Your task to perform on an android device: change timer sound Image 0: 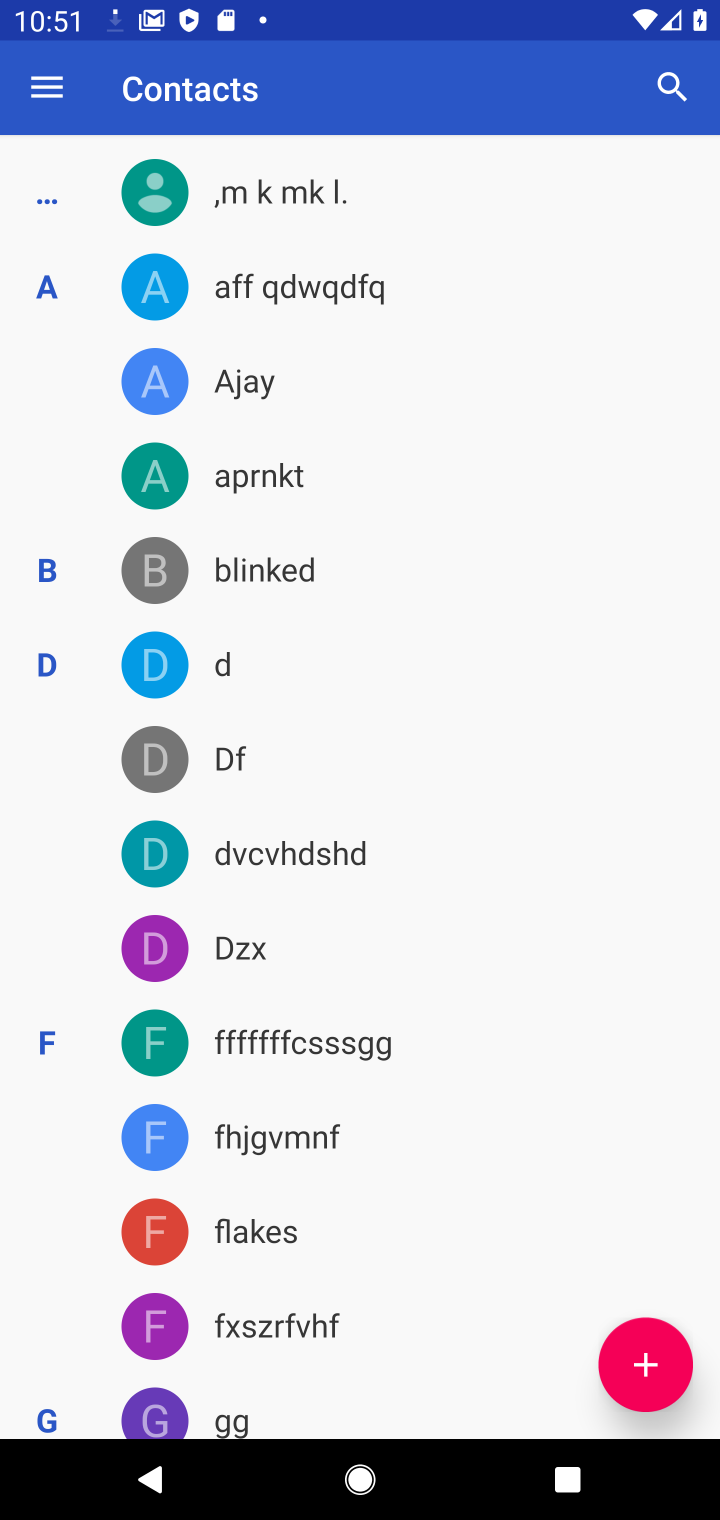
Step 0: press home button
Your task to perform on an android device: change timer sound Image 1: 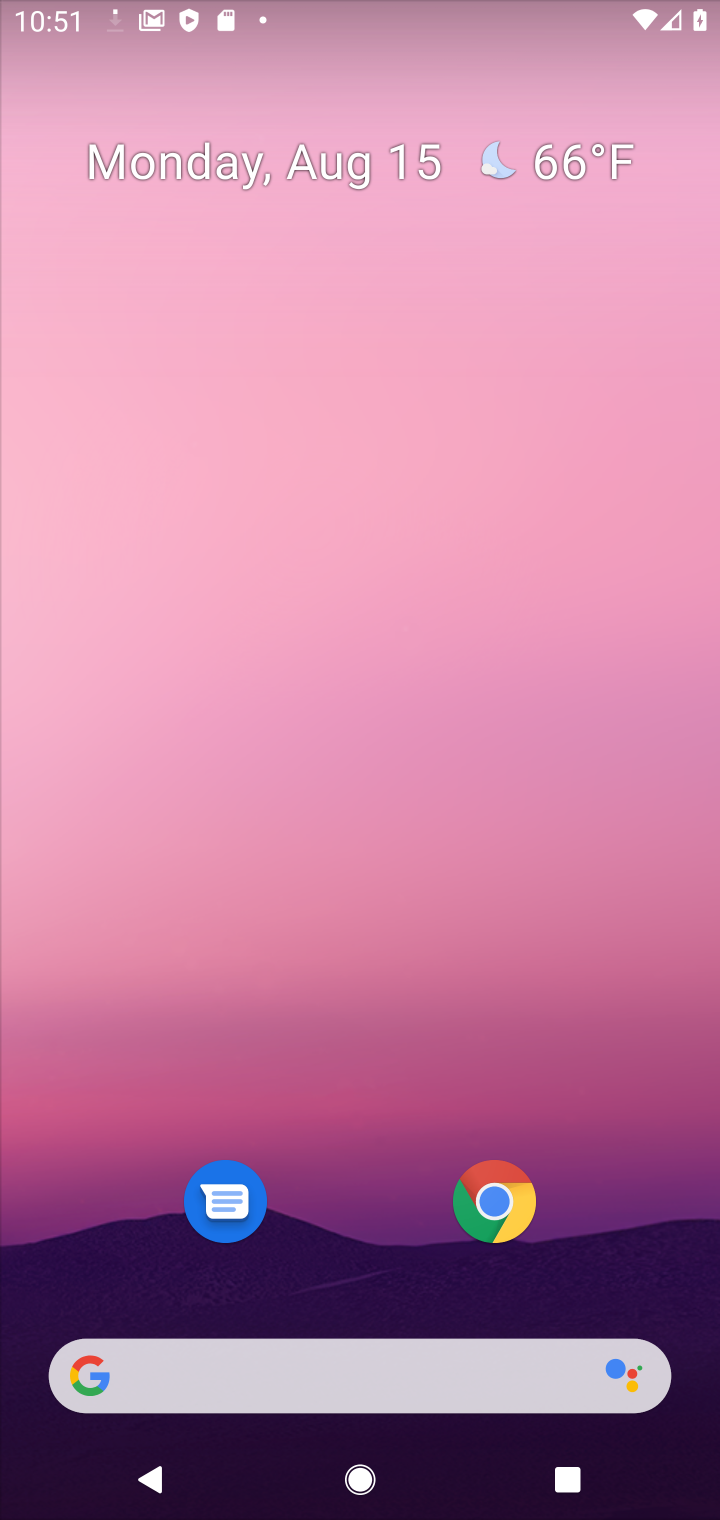
Step 1: drag from (369, 1337) to (385, 708)
Your task to perform on an android device: change timer sound Image 2: 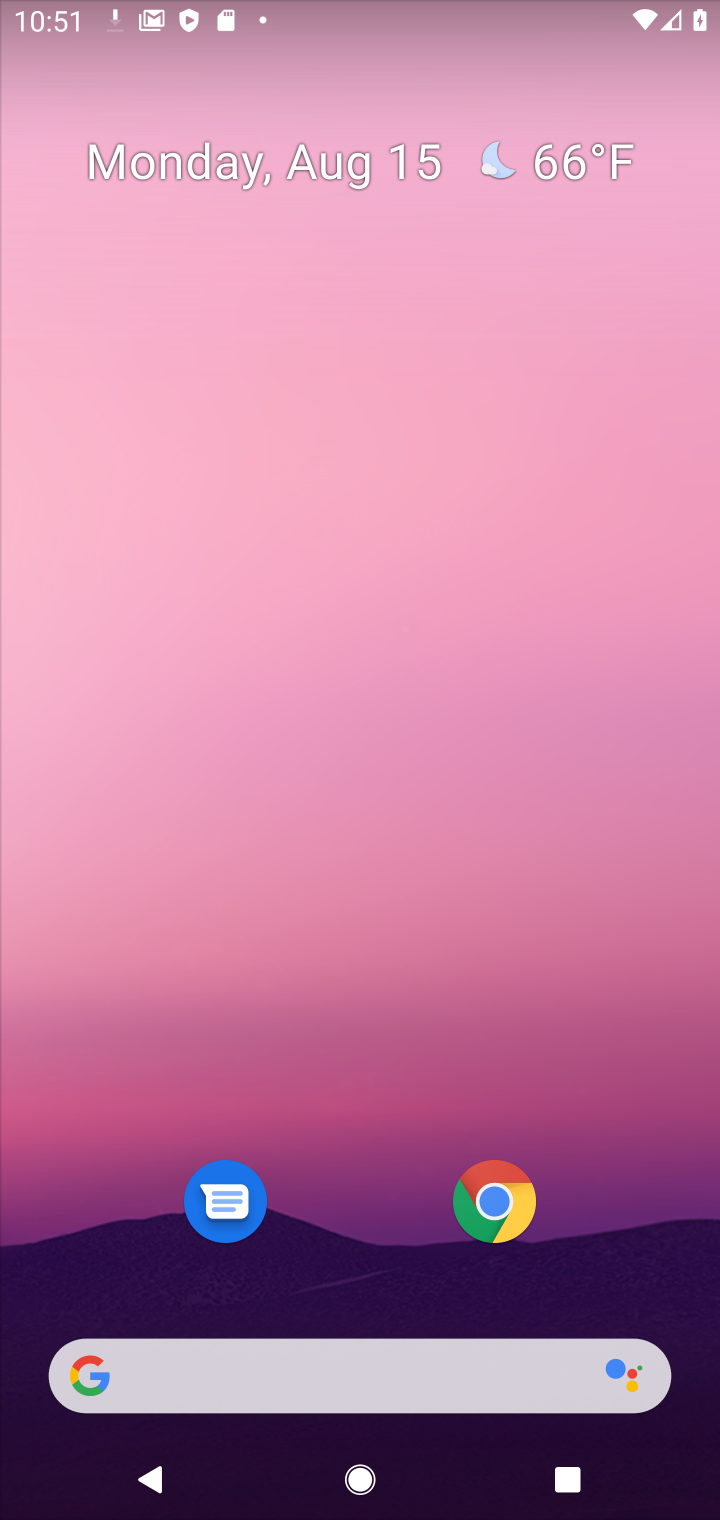
Step 2: drag from (361, 1345) to (331, 486)
Your task to perform on an android device: change timer sound Image 3: 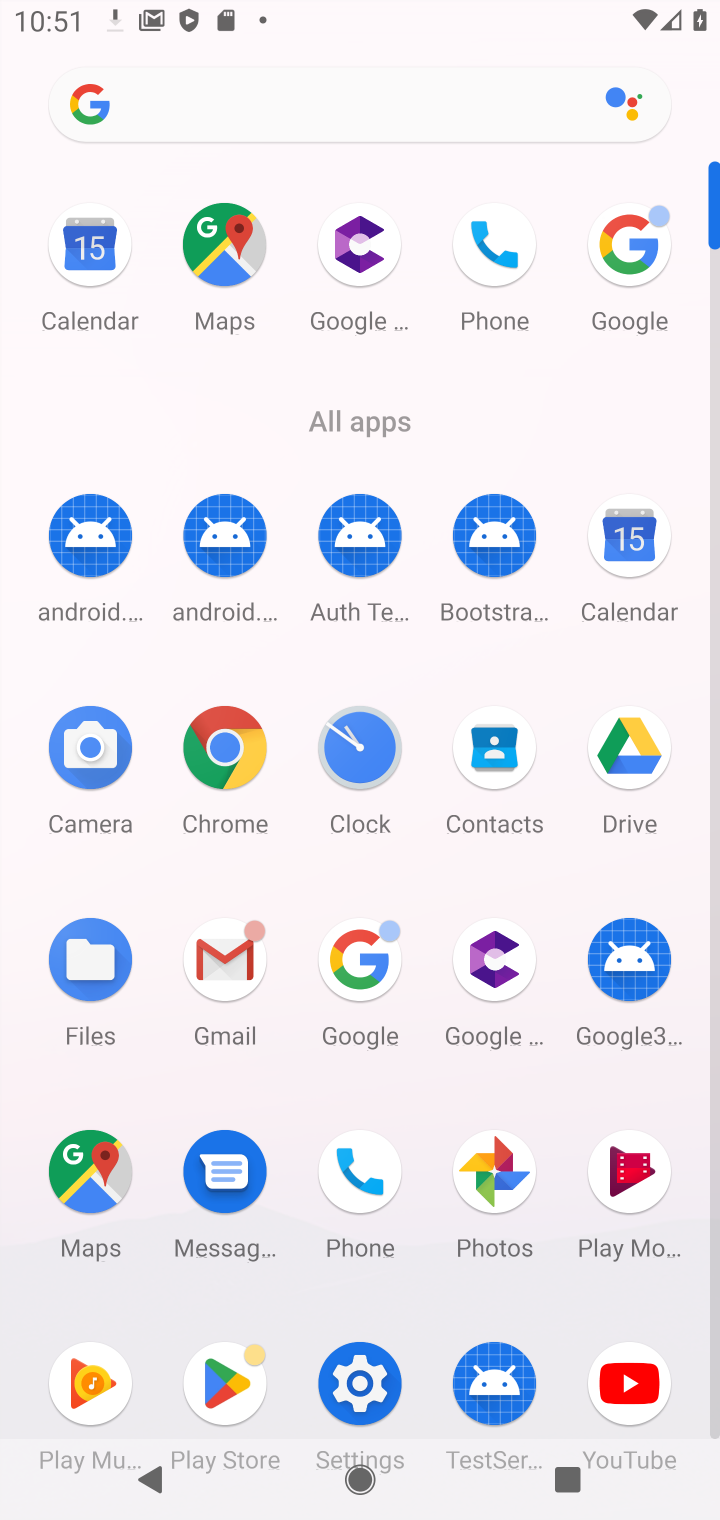
Step 3: click (353, 753)
Your task to perform on an android device: change timer sound Image 4: 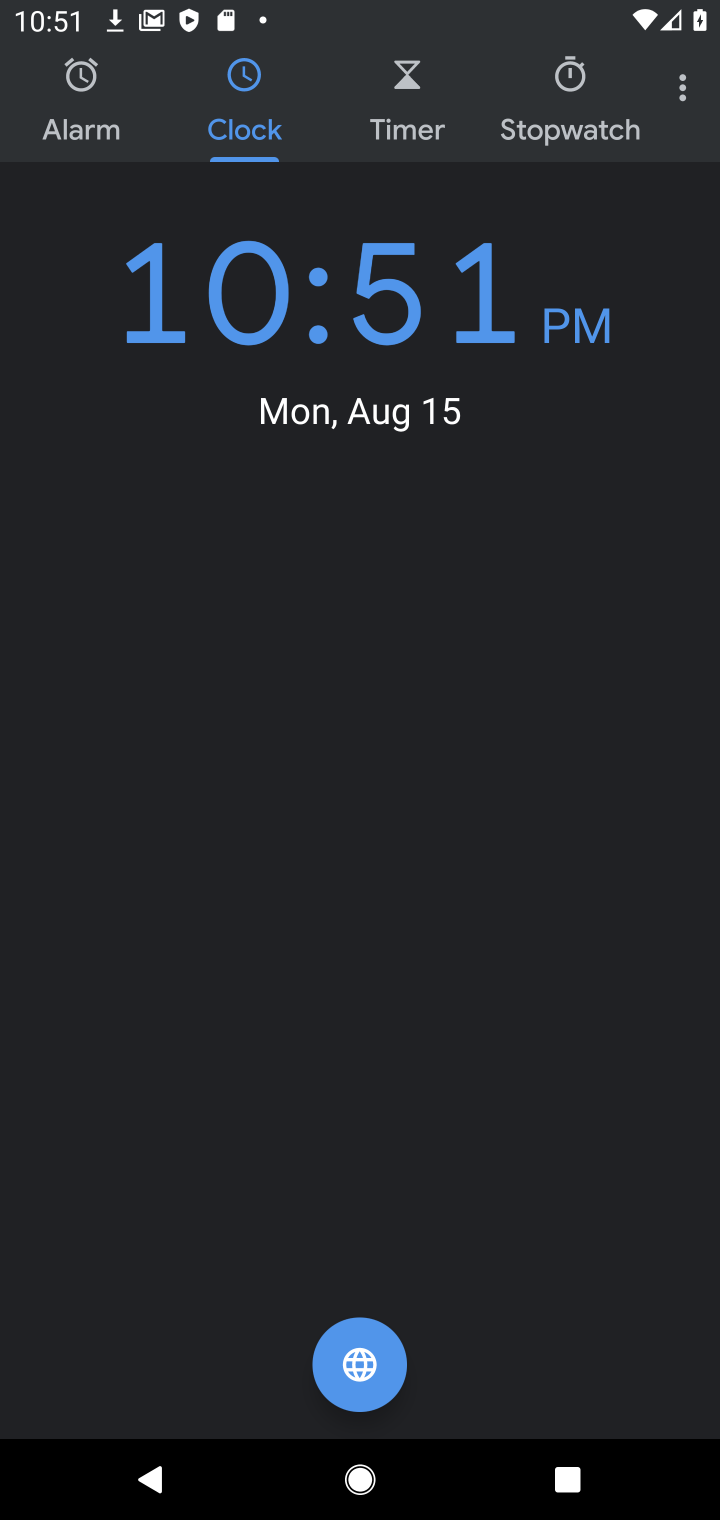
Step 4: click (666, 86)
Your task to perform on an android device: change timer sound Image 5: 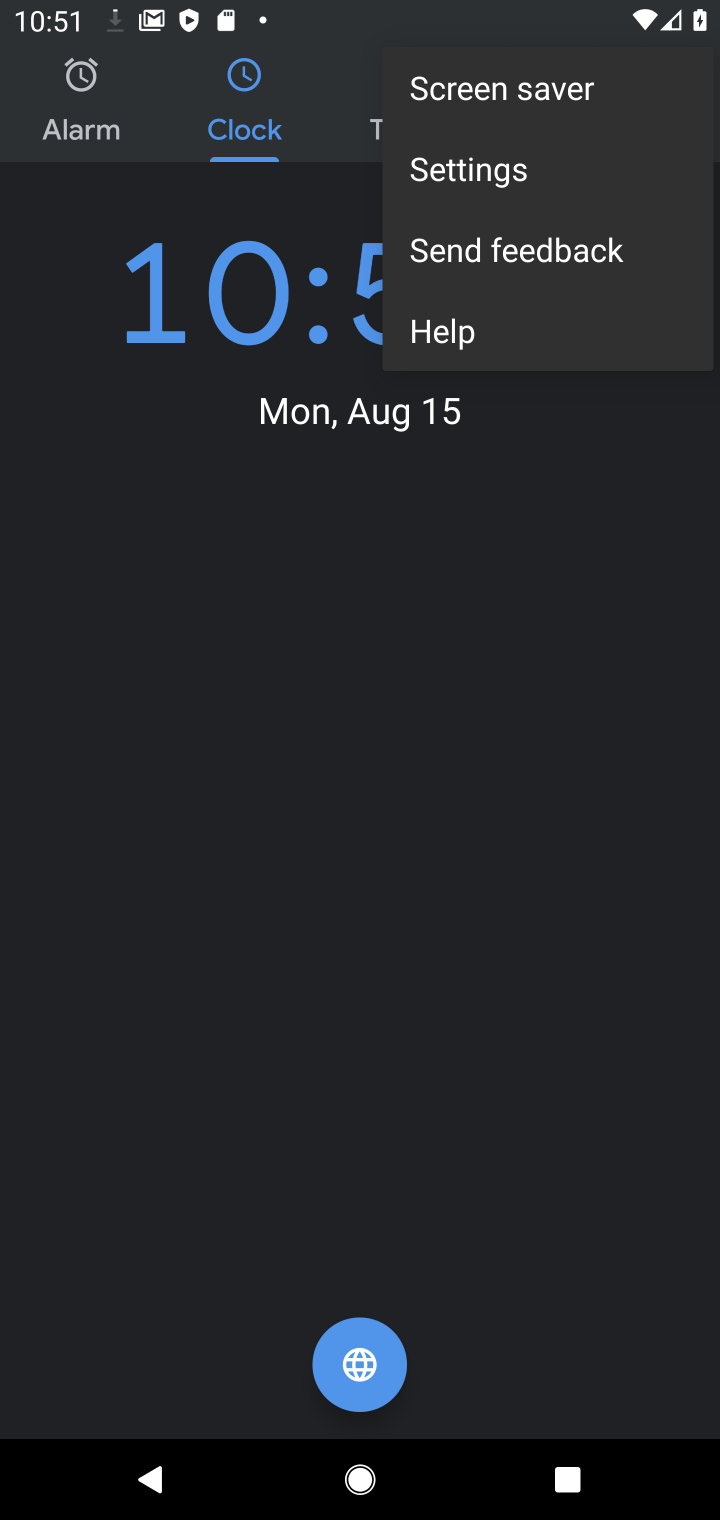
Step 5: click (511, 170)
Your task to perform on an android device: change timer sound Image 6: 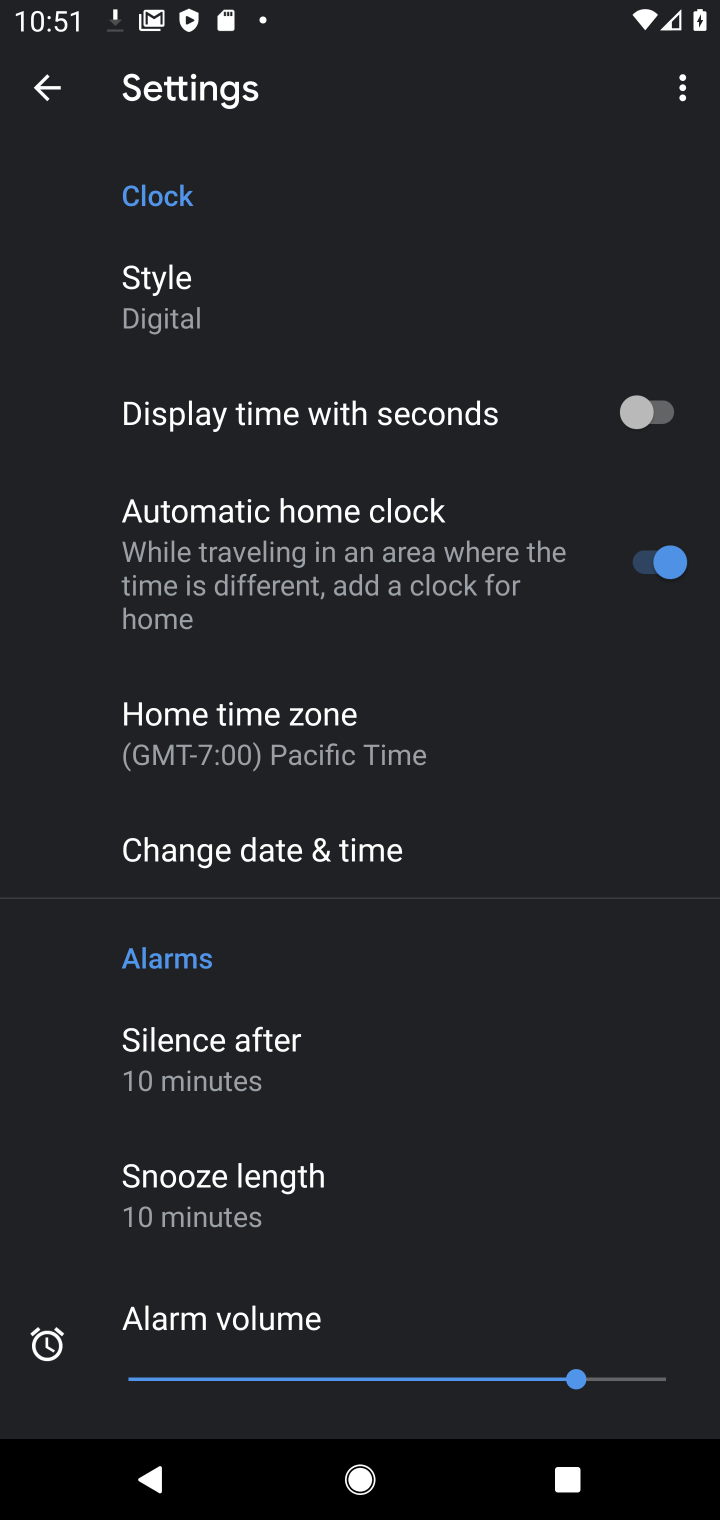
Step 6: drag from (245, 1210) to (289, 521)
Your task to perform on an android device: change timer sound Image 7: 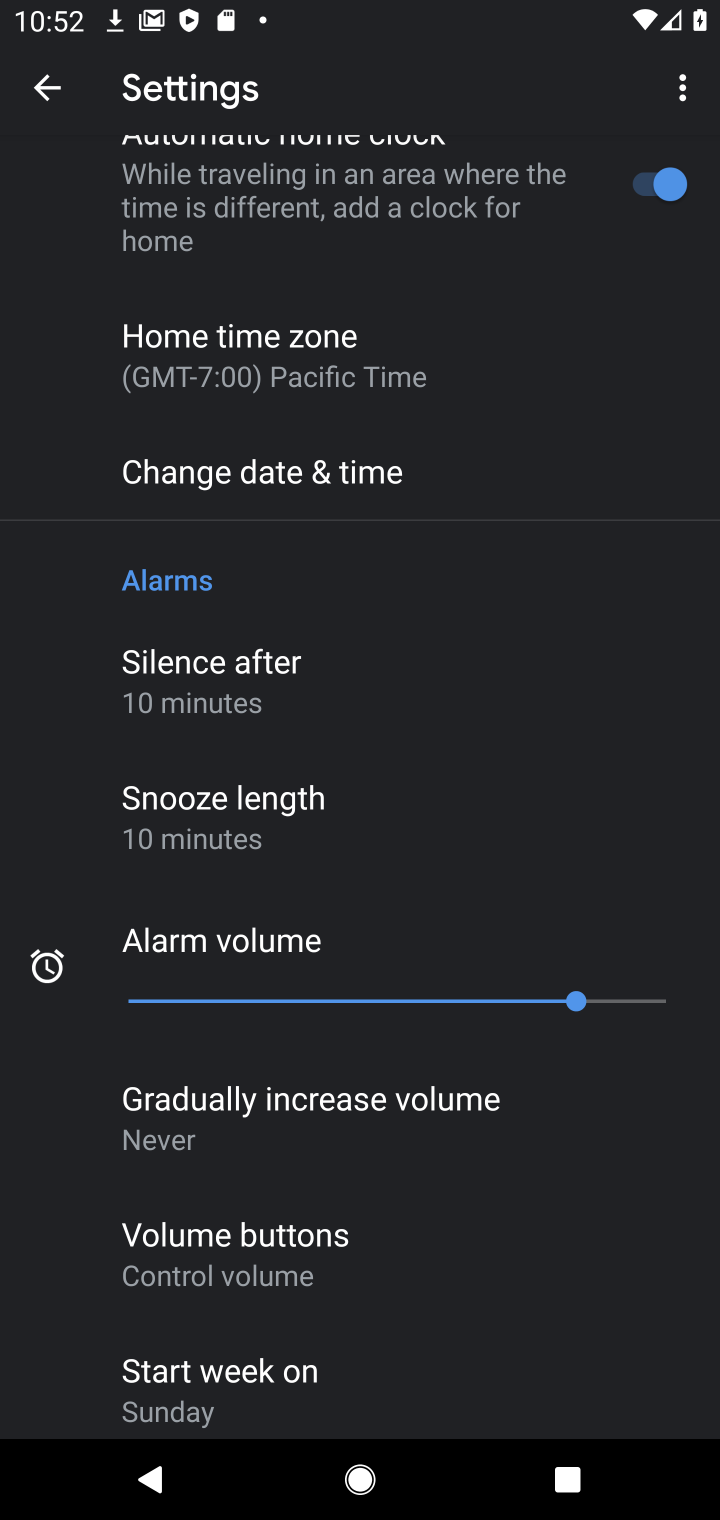
Step 7: drag from (242, 1351) to (222, 798)
Your task to perform on an android device: change timer sound Image 8: 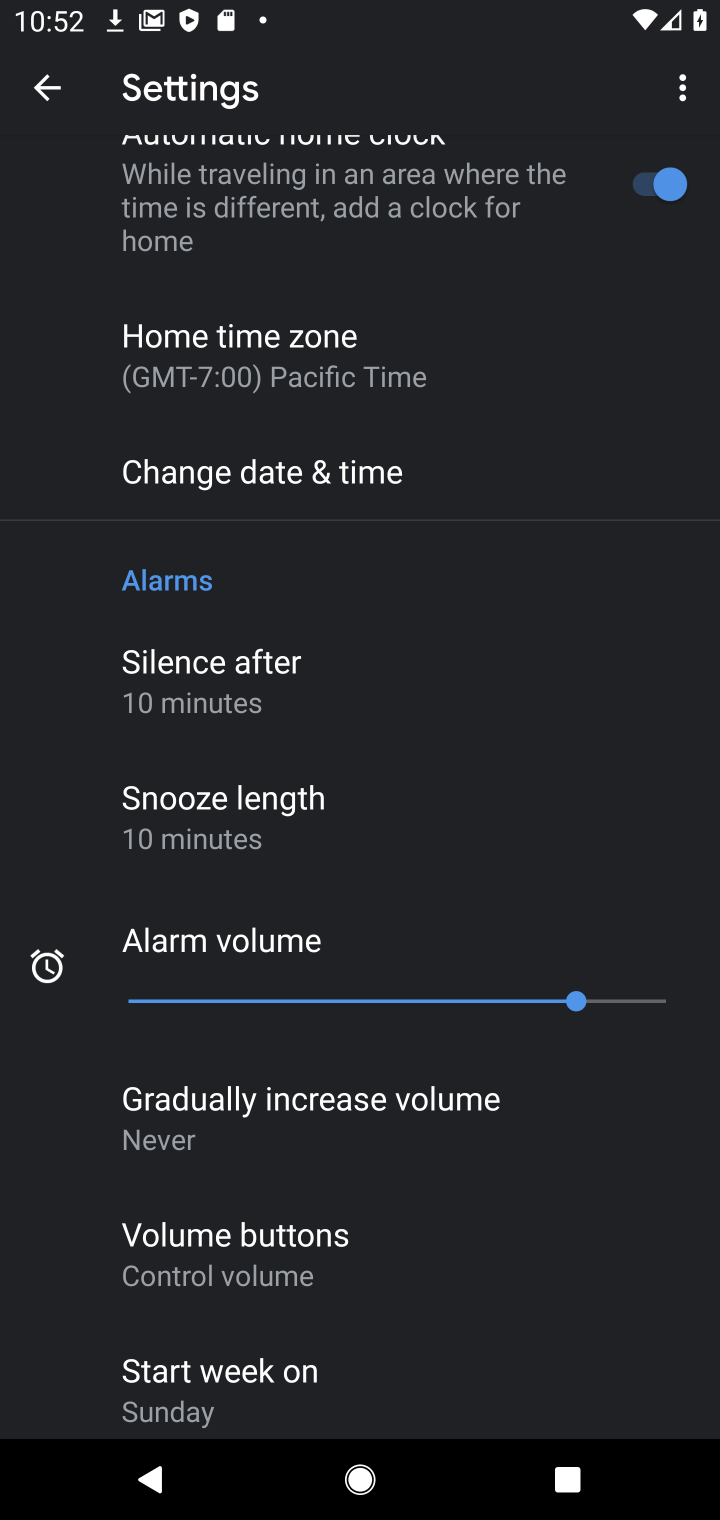
Step 8: drag from (249, 1361) to (274, 464)
Your task to perform on an android device: change timer sound Image 9: 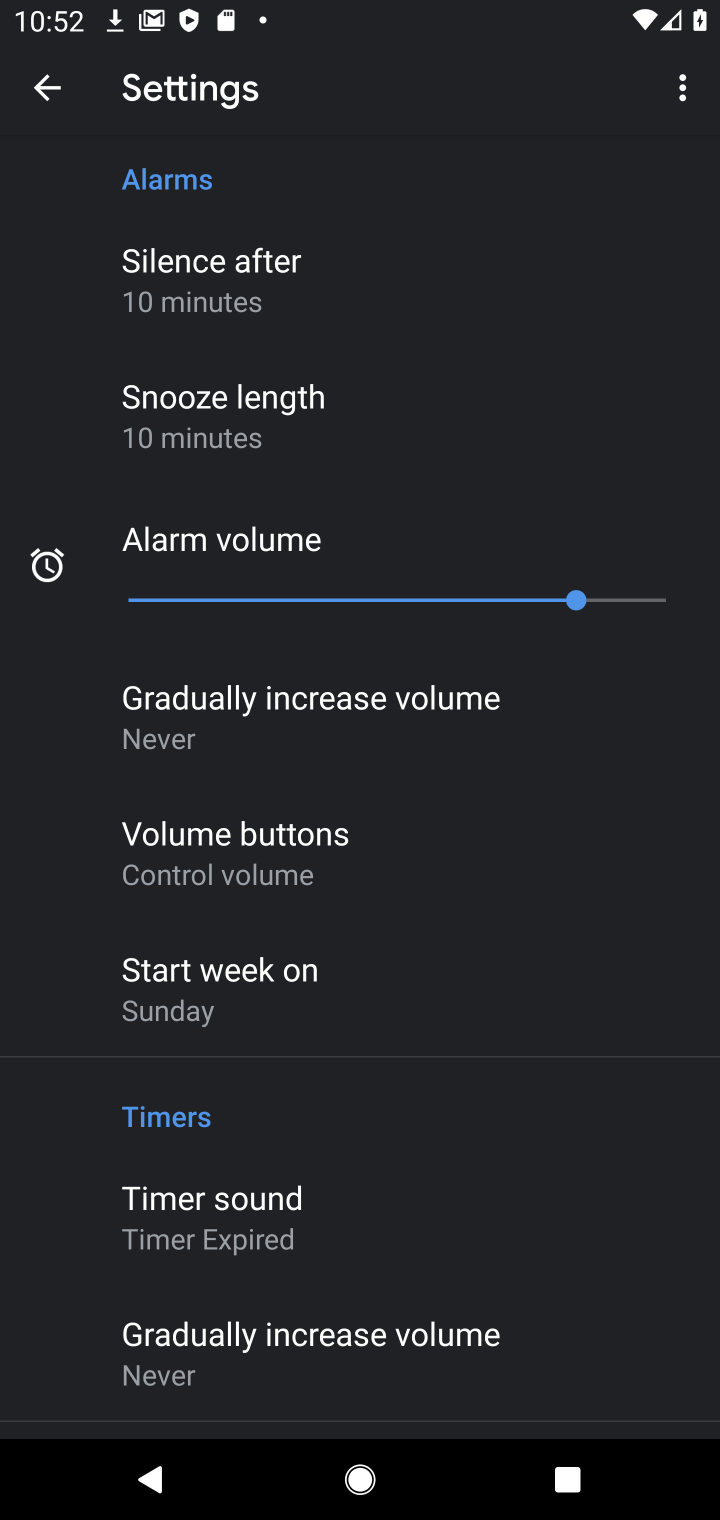
Step 9: click (250, 1210)
Your task to perform on an android device: change timer sound Image 10: 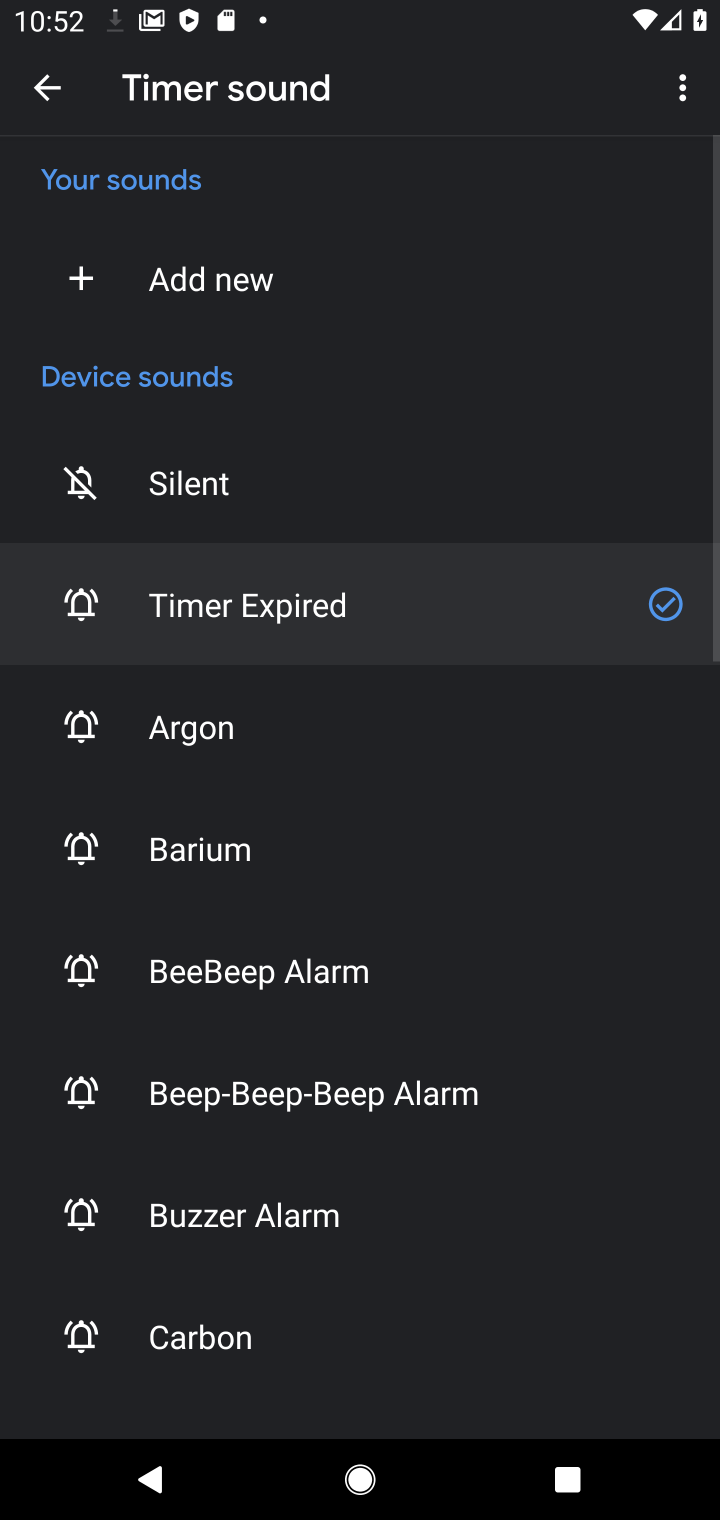
Step 10: click (203, 759)
Your task to perform on an android device: change timer sound Image 11: 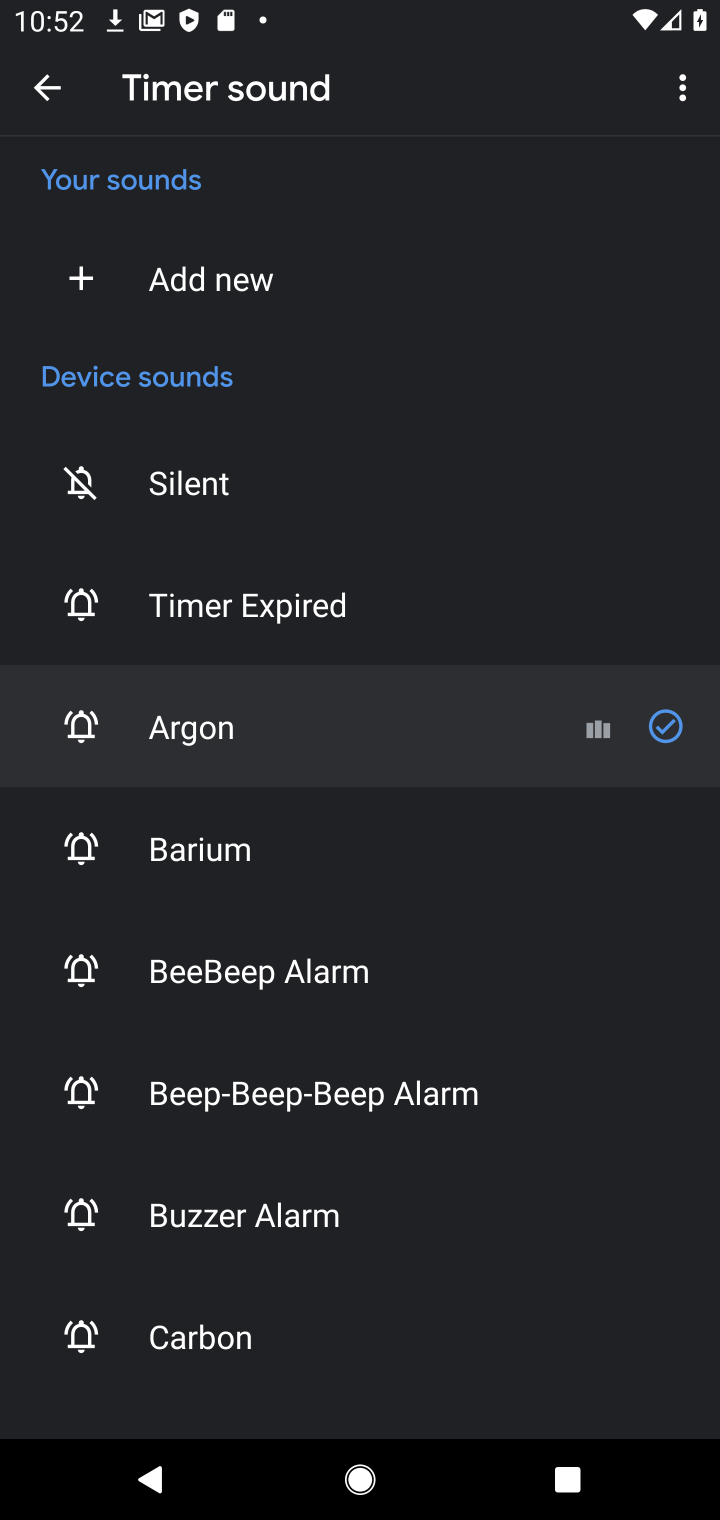
Step 11: task complete